Your task to perform on an android device: Show me popular videos on Youtube Image 0: 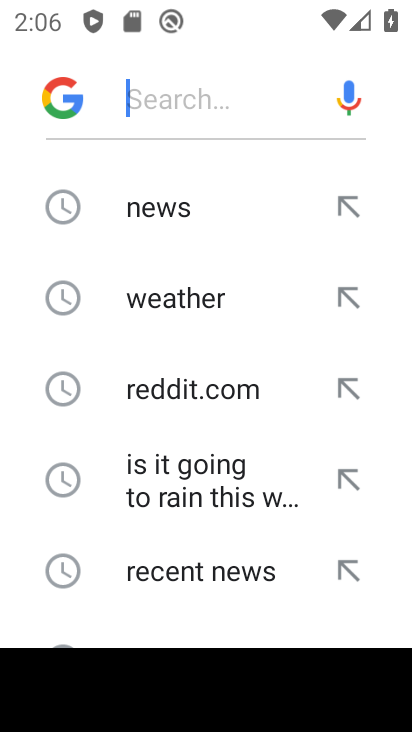
Step 0: press home button
Your task to perform on an android device: Show me popular videos on Youtube Image 1: 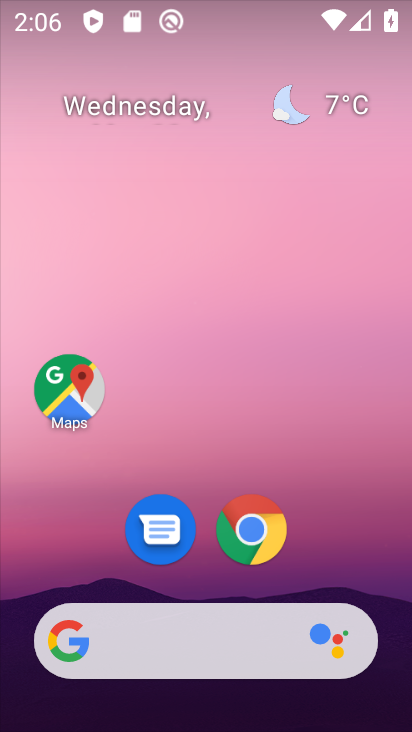
Step 1: drag from (376, 534) to (386, 20)
Your task to perform on an android device: Show me popular videos on Youtube Image 2: 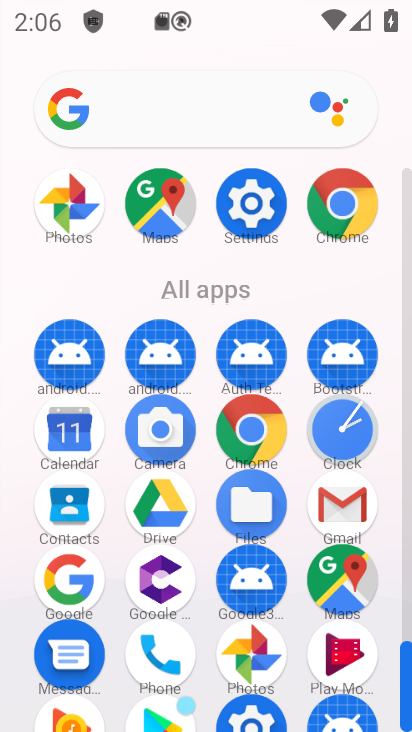
Step 2: drag from (405, 507) to (342, 116)
Your task to perform on an android device: Show me popular videos on Youtube Image 3: 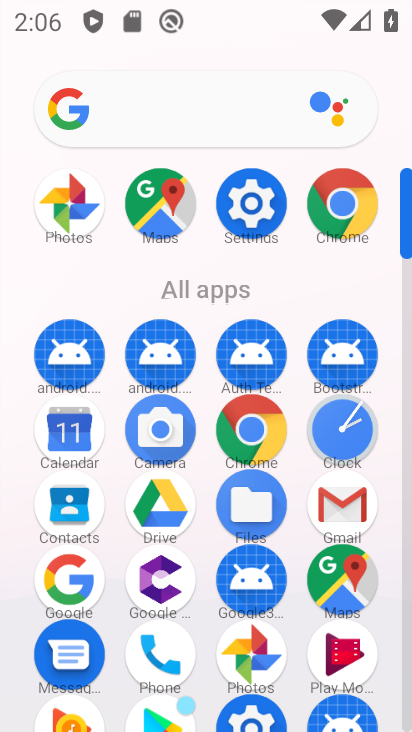
Step 3: drag from (394, 610) to (387, 198)
Your task to perform on an android device: Show me popular videos on Youtube Image 4: 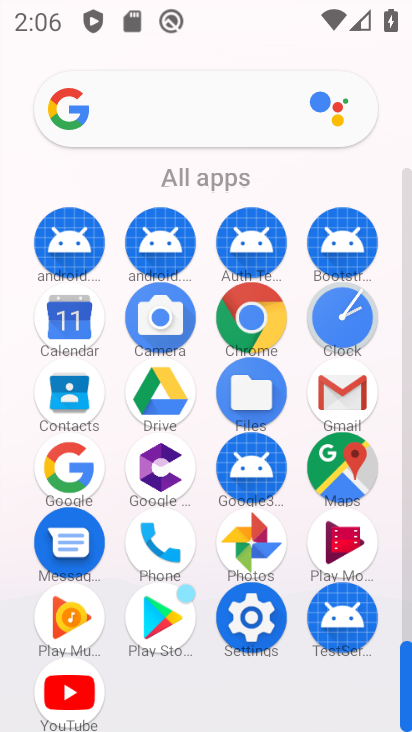
Step 4: click (66, 704)
Your task to perform on an android device: Show me popular videos on Youtube Image 5: 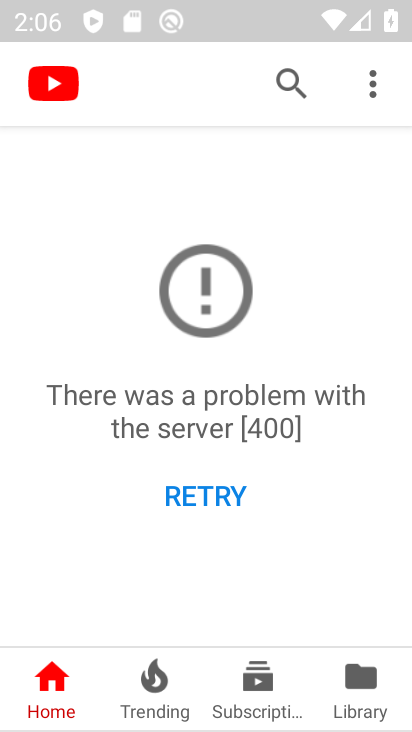
Step 5: click (295, 65)
Your task to perform on an android device: Show me popular videos on Youtube Image 6: 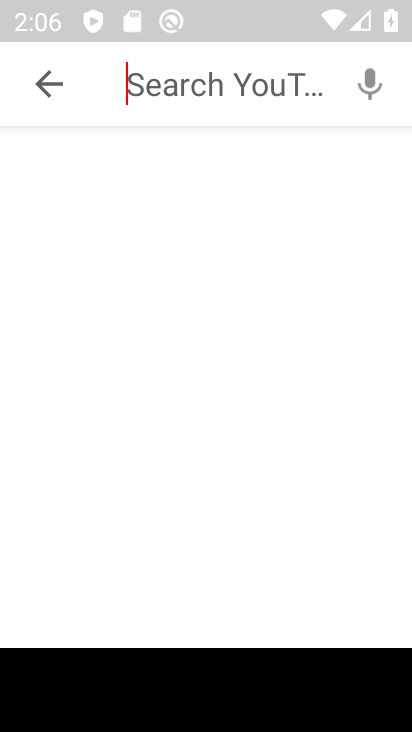
Step 6: type "popular video"
Your task to perform on an android device: Show me popular videos on Youtube Image 7: 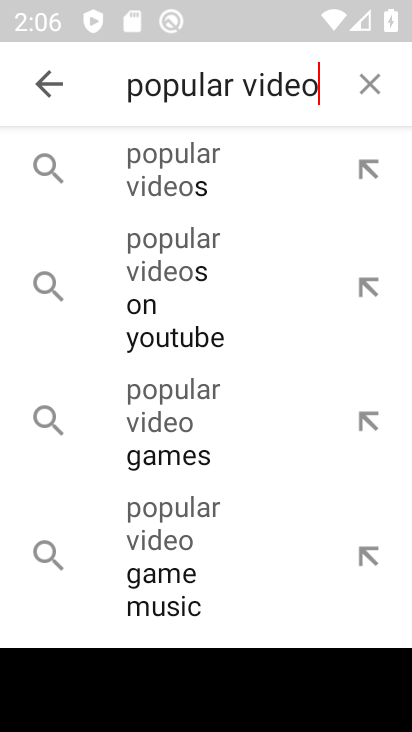
Step 7: click (187, 183)
Your task to perform on an android device: Show me popular videos on Youtube Image 8: 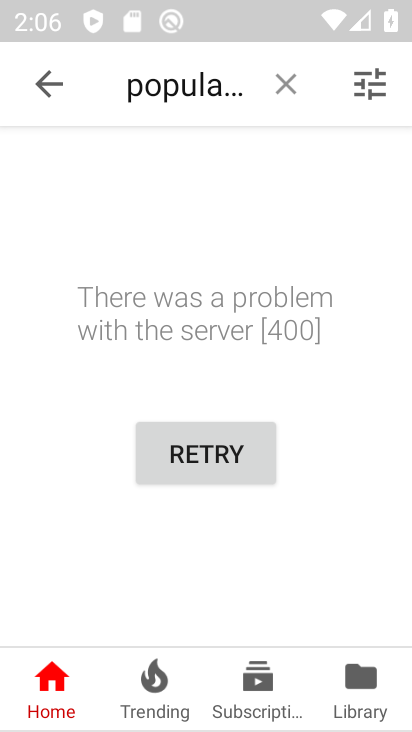
Step 8: click (197, 460)
Your task to perform on an android device: Show me popular videos on Youtube Image 9: 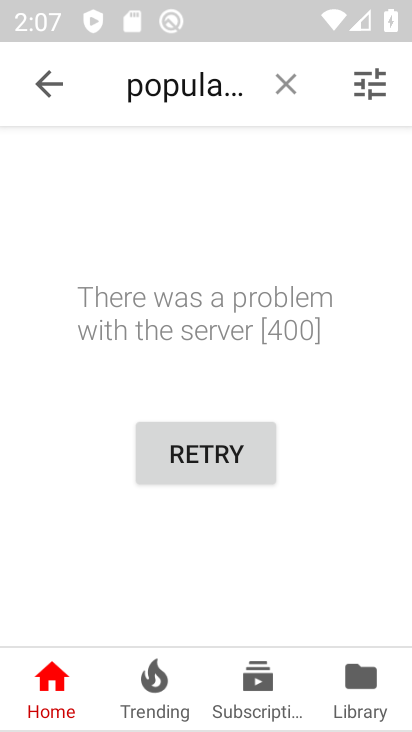
Step 9: click (197, 455)
Your task to perform on an android device: Show me popular videos on Youtube Image 10: 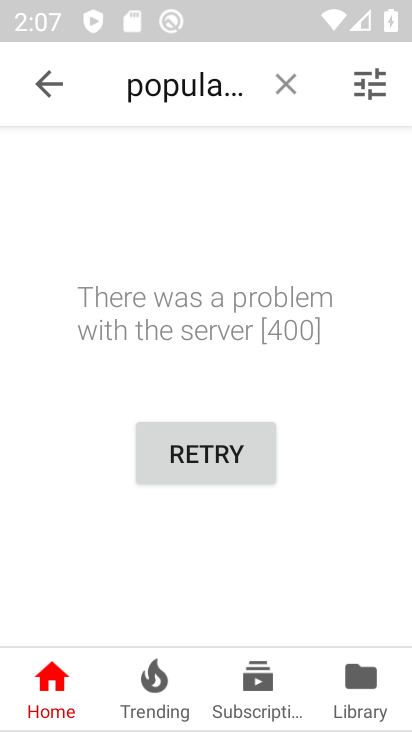
Step 10: task complete